Your task to perform on an android device: Empty the shopping cart on target. Search for lenovo thinkpad on target, select the first entry, add it to the cart, then select checkout. Image 0: 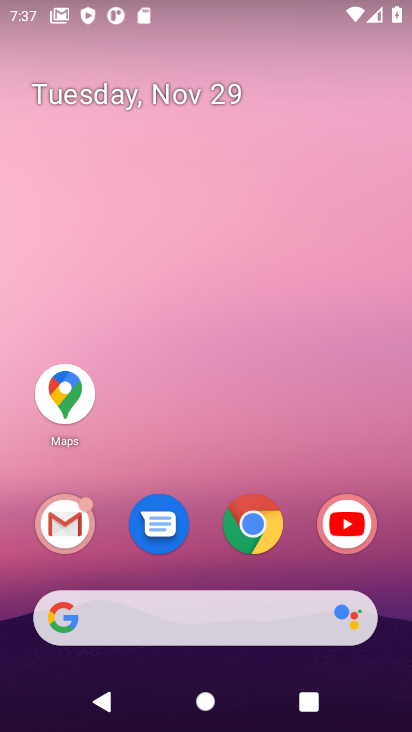
Step 0: click (258, 531)
Your task to perform on an android device: Empty the shopping cart on target. Search for lenovo thinkpad on target, select the first entry, add it to the cart, then select checkout. Image 1: 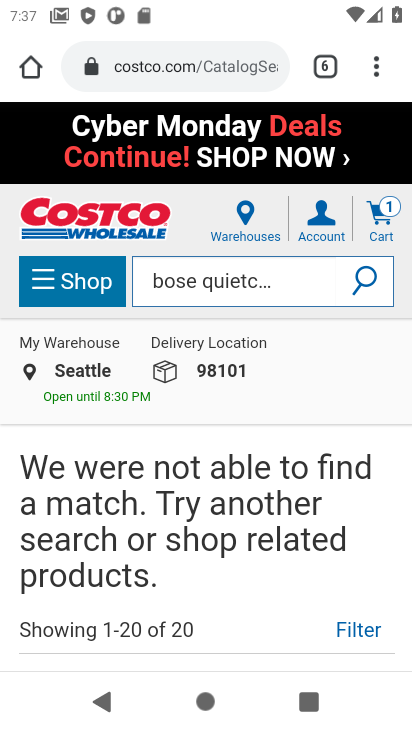
Step 1: click (177, 74)
Your task to perform on an android device: Empty the shopping cart on target. Search for lenovo thinkpad on target, select the first entry, add it to the cart, then select checkout. Image 2: 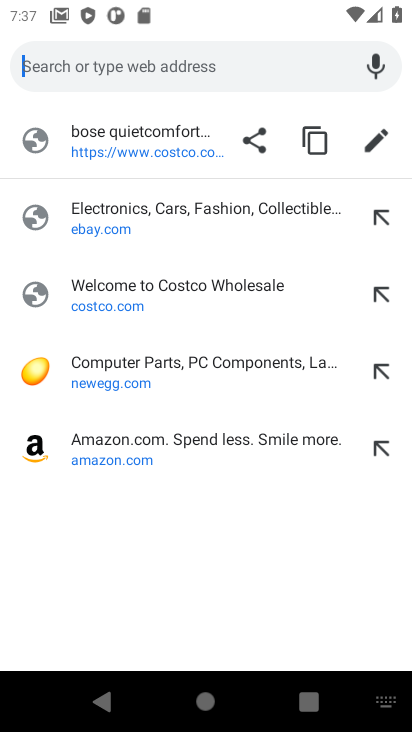
Step 2: type "target.com"
Your task to perform on an android device: Empty the shopping cart on target. Search for lenovo thinkpad on target, select the first entry, add it to the cart, then select checkout. Image 3: 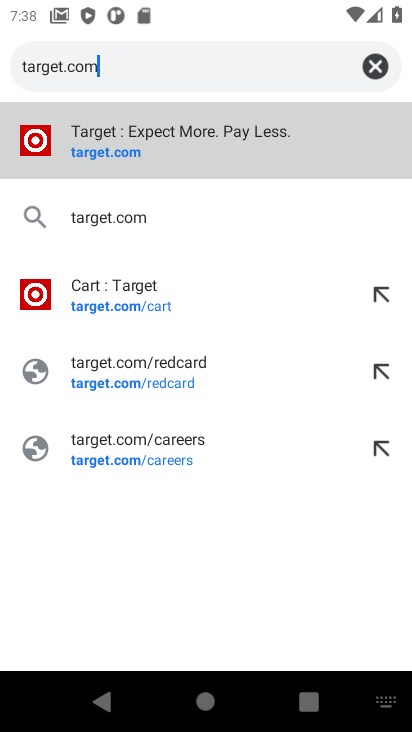
Step 3: click (115, 147)
Your task to perform on an android device: Empty the shopping cart on target. Search for lenovo thinkpad on target, select the first entry, add it to the cart, then select checkout. Image 4: 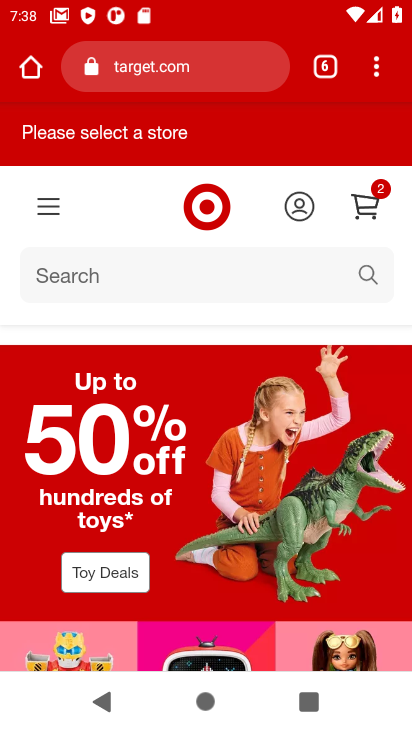
Step 4: click (369, 207)
Your task to perform on an android device: Empty the shopping cart on target. Search for lenovo thinkpad on target, select the first entry, add it to the cart, then select checkout. Image 5: 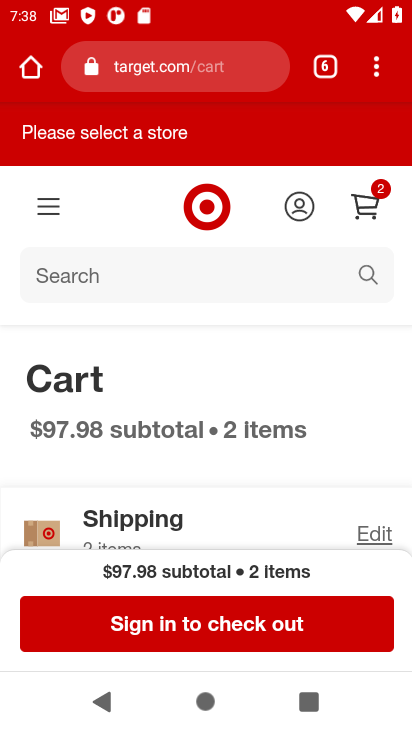
Step 5: drag from (282, 456) to (273, 306)
Your task to perform on an android device: Empty the shopping cart on target. Search for lenovo thinkpad on target, select the first entry, add it to the cart, then select checkout. Image 6: 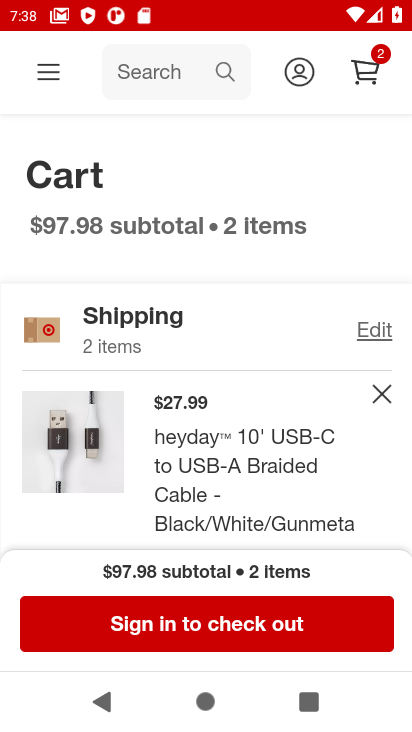
Step 6: click (383, 397)
Your task to perform on an android device: Empty the shopping cart on target. Search for lenovo thinkpad on target, select the first entry, add it to the cart, then select checkout. Image 7: 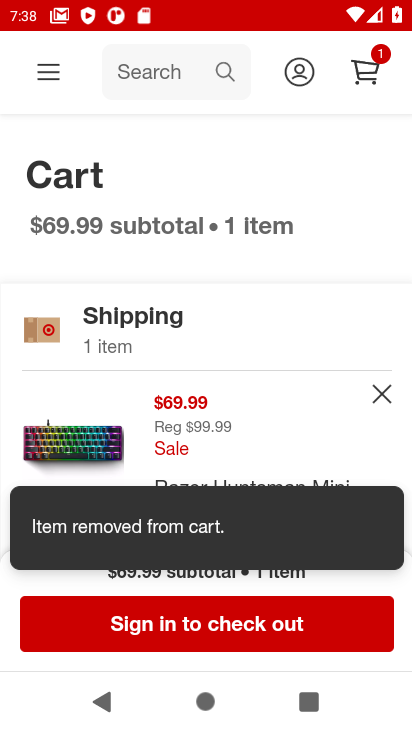
Step 7: click (383, 397)
Your task to perform on an android device: Empty the shopping cart on target. Search for lenovo thinkpad on target, select the first entry, add it to the cart, then select checkout. Image 8: 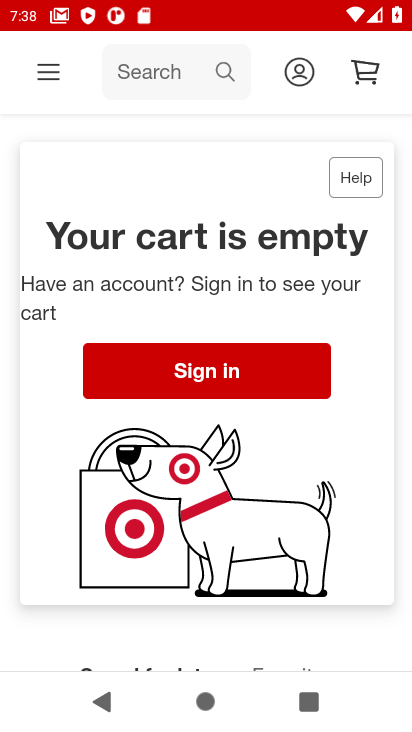
Step 8: drag from (272, 224) to (281, 322)
Your task to perform on an android device: Empty the shopping cart on target. Search for lenovo thinkpad on target, select the first entry, add it to the cart, then select checkout. Image 9: 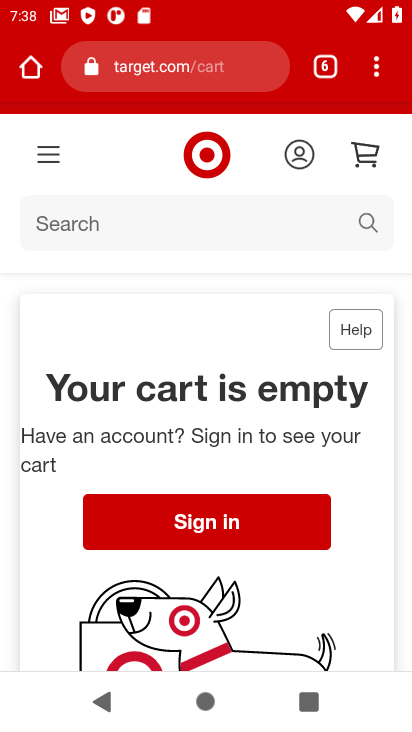
Step 9: click (72, 226)
Your task to perform on an android device: Empty the shopping cart on target. Search for lenovo thinkpad on target, select the first entry, add it to the cart, then select checkout. Image 10: 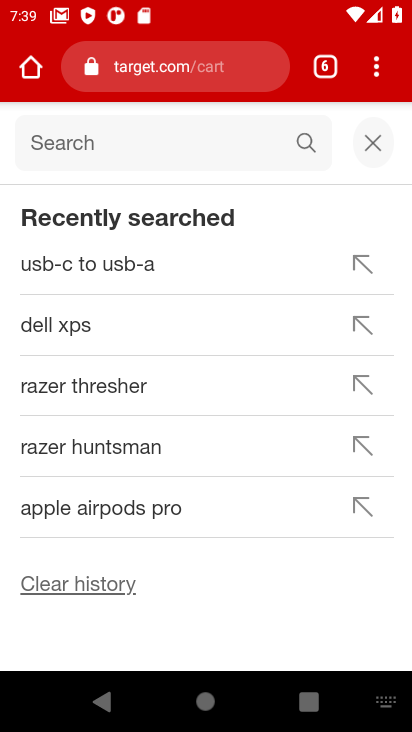
Step 10: type "lenovo thinkpad"
Your task to perform on an android device: Empty the shopping cart on target. Search for lenovo thinkpad on target, select the first entry, add it to the cart, then select checkout. Image 11: 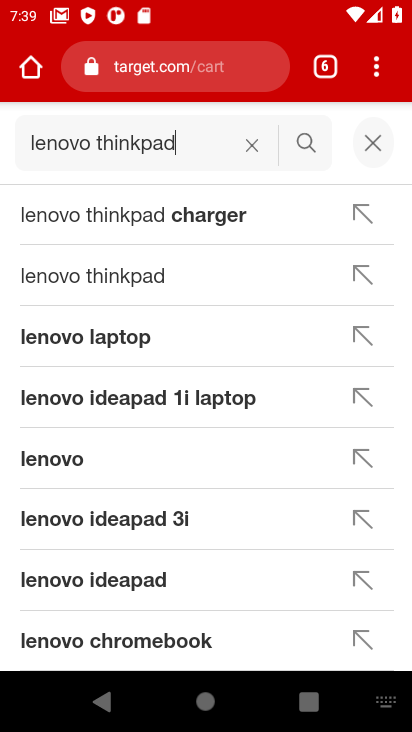
Step 11: click (129, 277)
Your task to perform on an android device: Empty the shopping cart on target. Search for lenovo thinkpad on target, select the first entry, add it to the cart, then select checkout. Image 12: 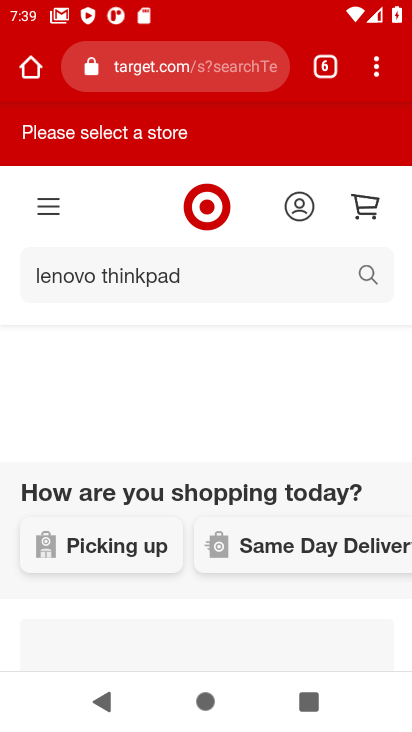
Step 12: drag from (188, 457) to (173, 235)
Your task to perform on an android device: Empty the shopping cart on target. Search for lenovo thinkpad on target, select the first entry, add it to the cart, then select checkout. Image 13: 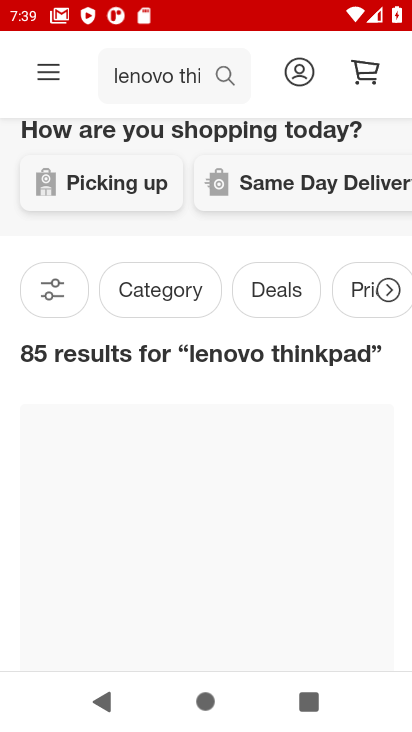
Step 13: drag from (172, 497) to (169, 226)
Your task to perform on an android device: Empty the shopping cart on target. Search for lenovo thinkpad on target, select the first entry, add it to the cart, then select checkout. Image 14: 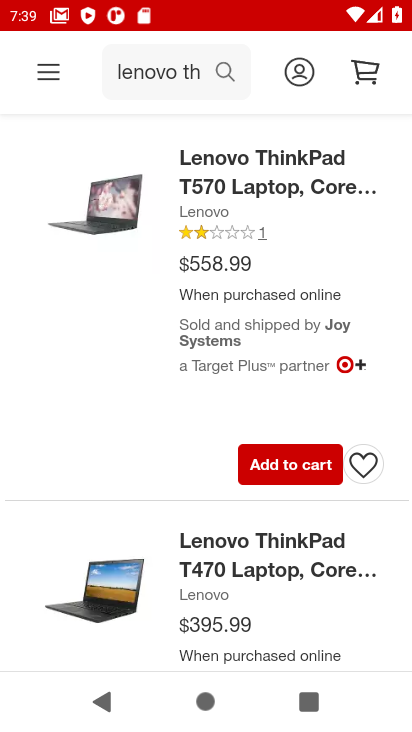
Step 14: drag from (139, 267) to (150, 462)
Your task to perform on an android device: Empty the shopping cart on target. Search for lenovo thinkpad on target, select the first entry, add it to the cart, then select checkout. Image 15: 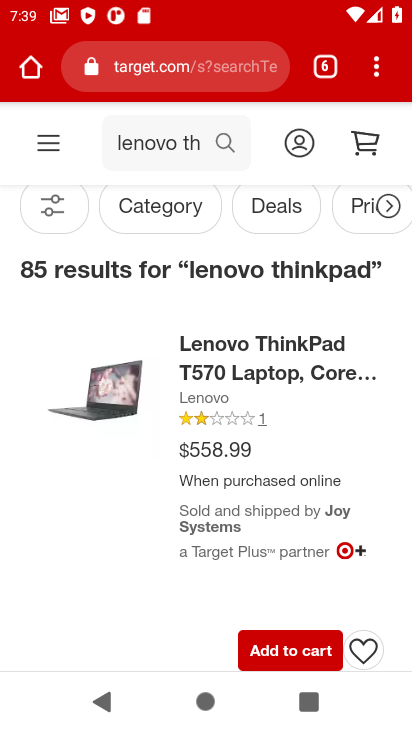
Step 15: click (267, 364)
Your task to perform on an android device: Empty the shopping cart on target. Search for lenovo thinkpad on target, select the first entry, add it to the cart, then select checkout. Image 16: 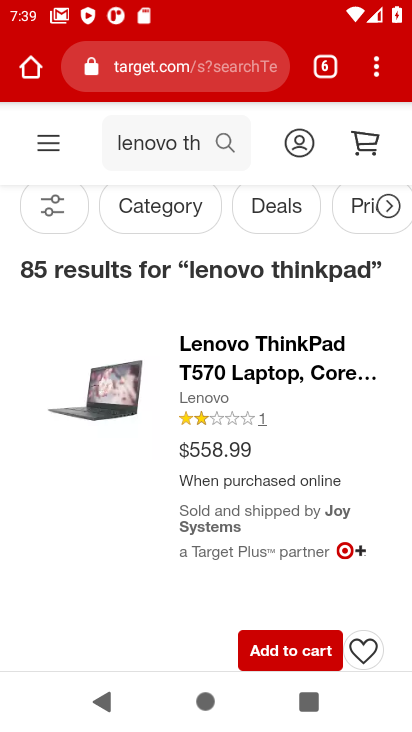
Step 16: click (267, 364)
Your task to perform on an android device: Empty the shopping cart on target. Search for lenovo thinkpad on target, select the first entry, add it to the cart, then select checkout. Image 17: 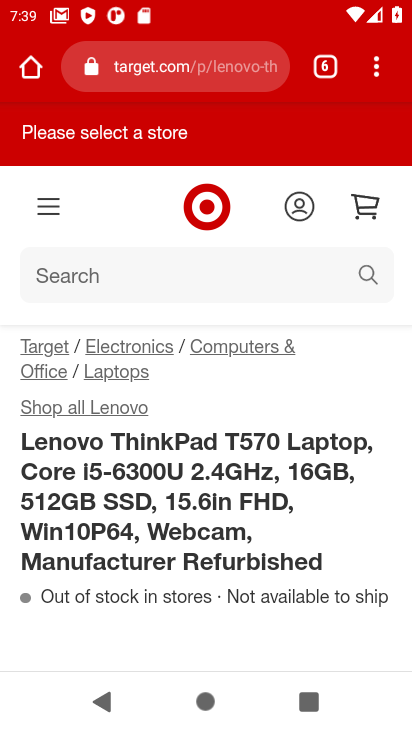
Step 17: drag from (227, 496) to (244, 235)
Your task to perform on an android device: Empty the shopping cart on target. Search for lenovo thinkpad on target, select the first entry, add it to the cart, then select checkout. Image 18: 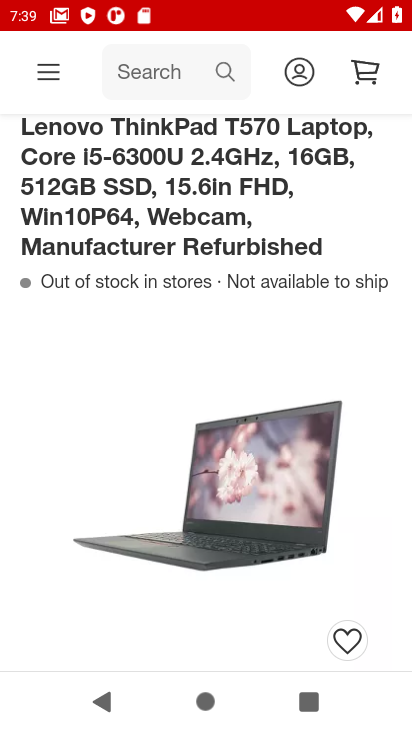
Step 18: drag from (198, 544) to (198, 166)
Your task to perform on an android device: Empty the shopping cart on target. Search for lenovo thinkpad on target, select the first entry, add it to the cart, then select checkout. Image 19: 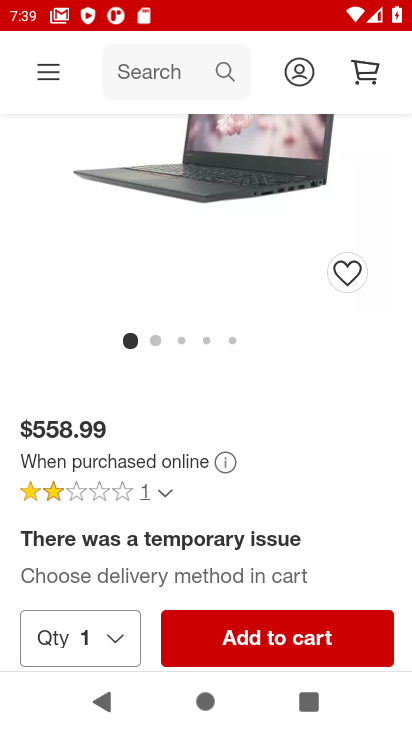
Step 19: click (238, 636)
Your task to perform on an android device: Empty the shopping cart on target. Search for lenovo thinkpad on target, select the first entry, add it to the cart, then select checkout. Image 20: 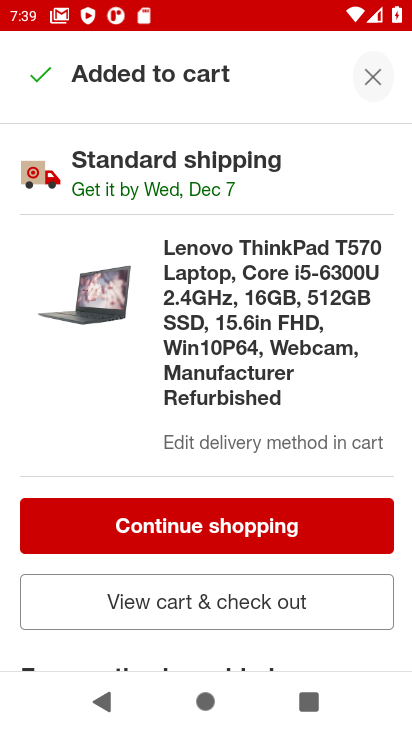
Step 20: click (199, 587)
Your task to perform on an android device: Empty the shopping cart on target. Search for lenovo thinkpad on target, select the first entry, add it to the cart, then select checkout. Image 21: 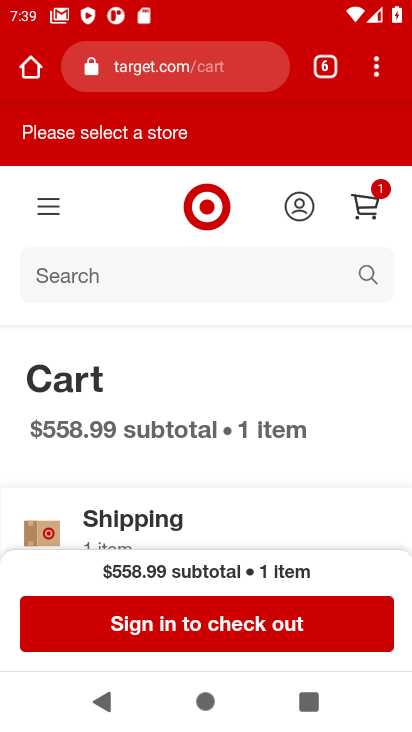
Step 21: click (175, 629)
Your task to perform on an android device: Empty the shopping cart on target. Search for lenovo thinkpad on target, select the first entry, add it to the cart, then select checkout. Image 22: 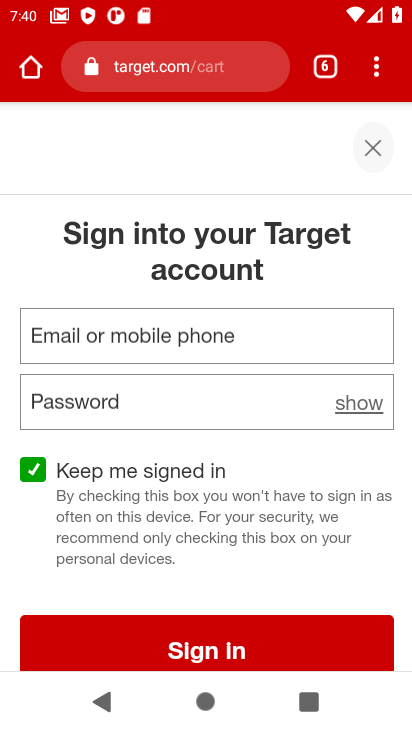
Step 22: task complete